Your task to perform on an android device: open a bookmark in the chrome app Image 0: 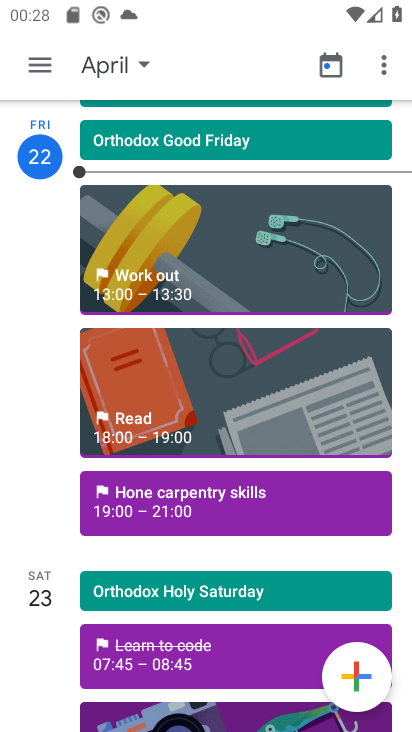
Step 0: press home button
Your task to perform on an android device: open a bookmark in the chrome app Image 1: 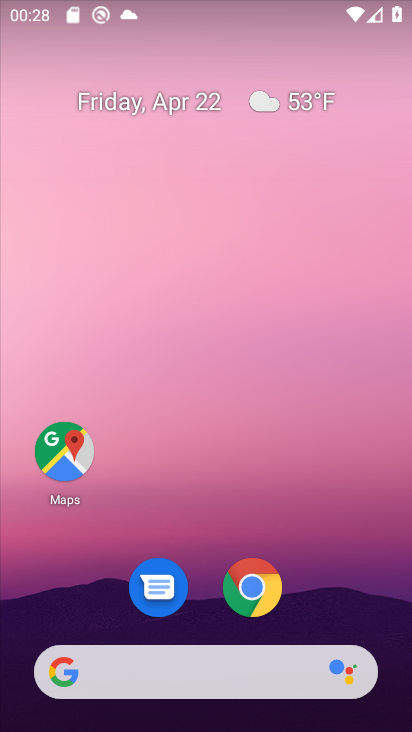
Step 1: click (249, 609)
Your task to perform on an android device: open a bookmark in the chrome app Image 2: 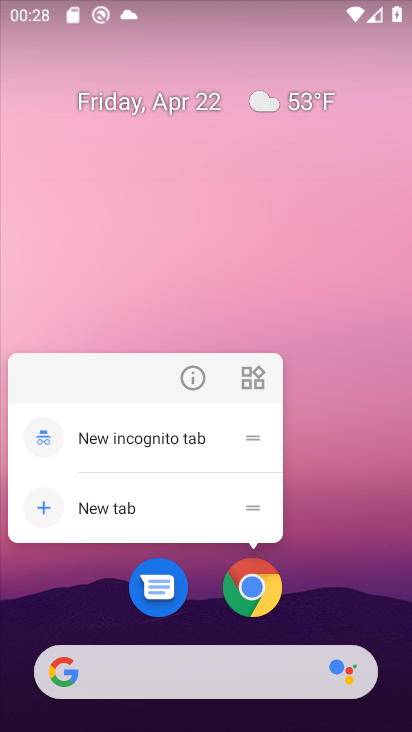
Step 2: click (255, 593)
Your task to perform on an android device: open a bookmark in the chrome app Image 3: 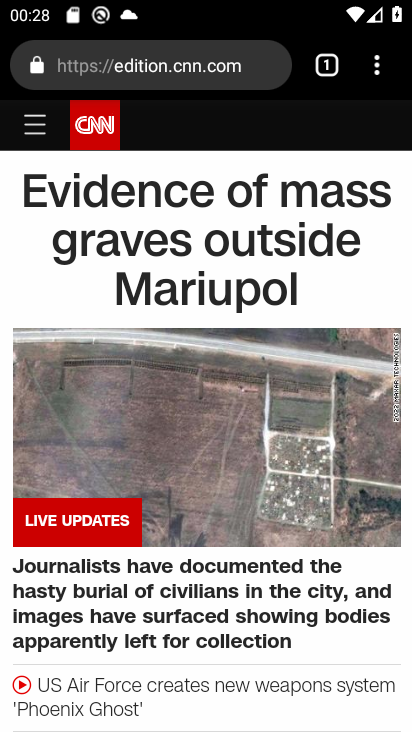
Step 3: task complete